Your task to perform on an android device: turn pop-ups on in chrome Image 0: 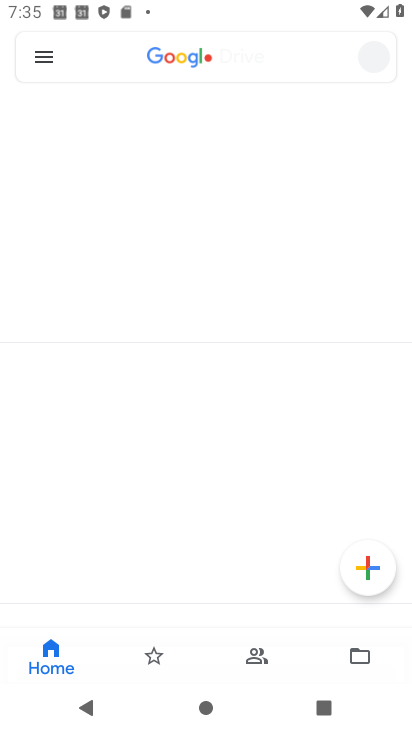
Step 0: press home button
Your task to perform on an android device: turn pop-ups on in chrome Image 1: 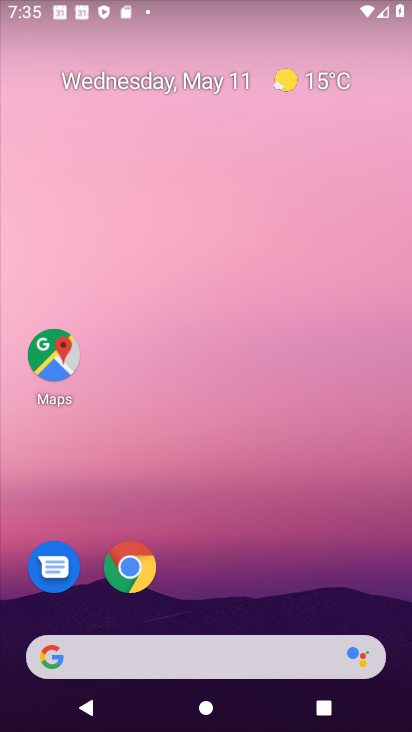
Step 1: click (127, 567)
Your task to perform on an android device: turn pop-ups on in chrome Image 2: 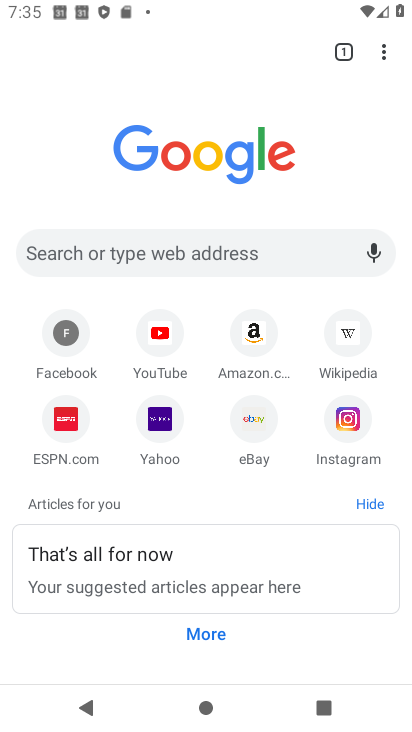
Step 2: drag from (381, 52) to (244, 440)
Your task to perform on an android device: turn pop-ups on in chrome Image 3: 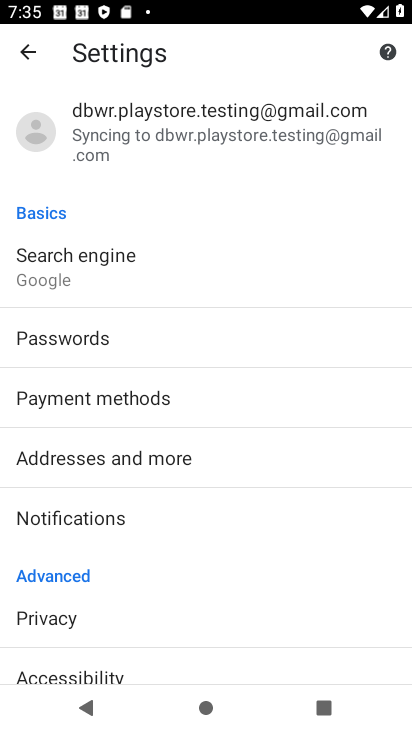
Step 3: drag from (154, 614) to (264, 281)
Your task to perform on an android device: turn pop-ups on in chrome Image 4: 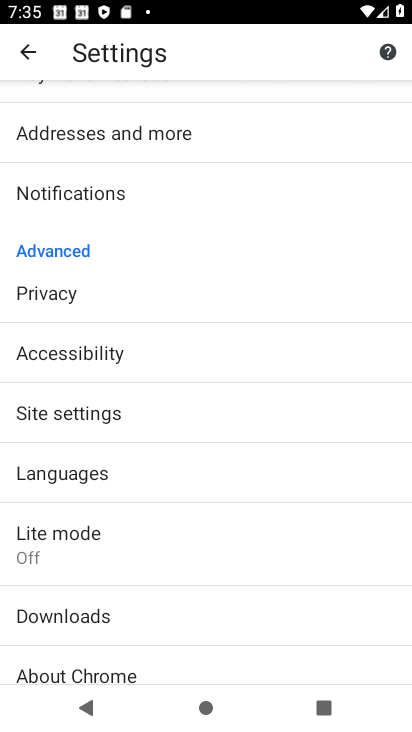
Step 4: click (114, 418)
Your task to perform on an android device: turn pop-ups on in chrome Image 5: 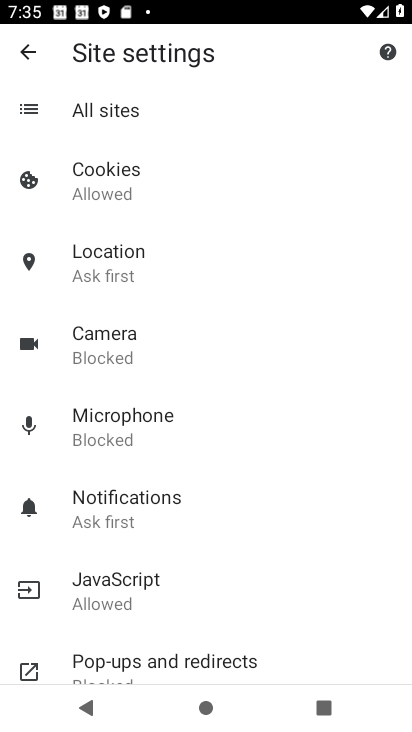
Step 5: click (176, 661)
Your task to perform on an android device: turn pop-ups on in chrome Image 6: 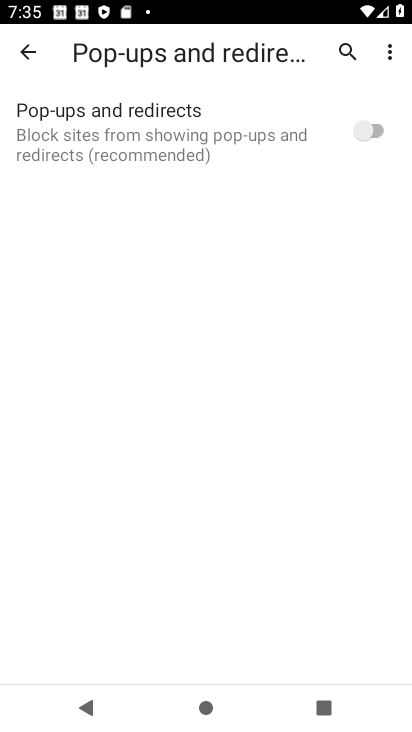
Step 6: click (375, 129)
Your task to perform on an android device: turn pop-ups on in chrome Image 7: 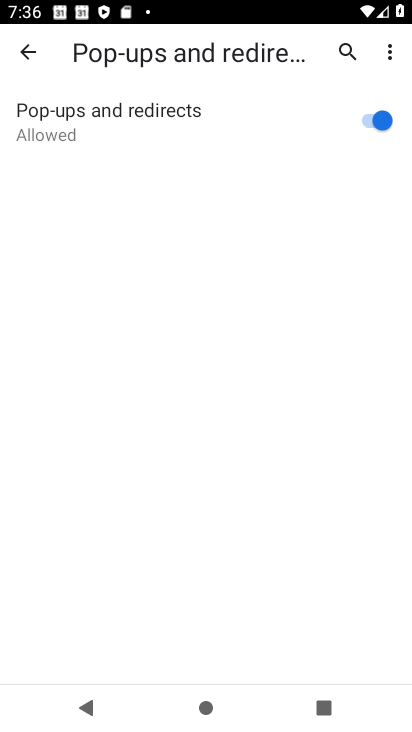
Step 7: task complete